Your task to perform on an android device: Go to settings Image 0: 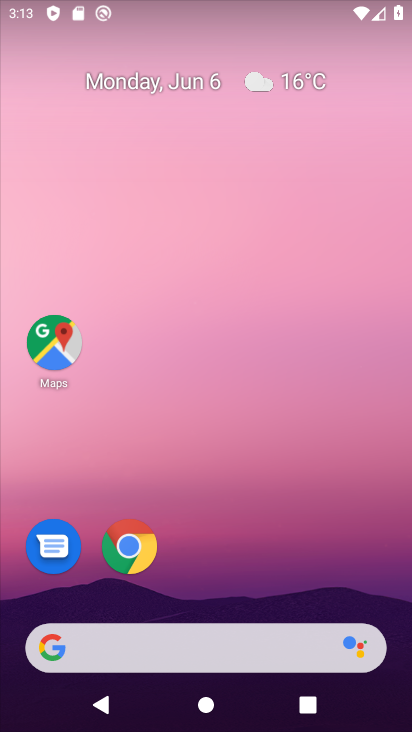
Step 0: drag from (295, 511) to (283, 0)
Your task to perform on an android device: Go to settings Image 1: 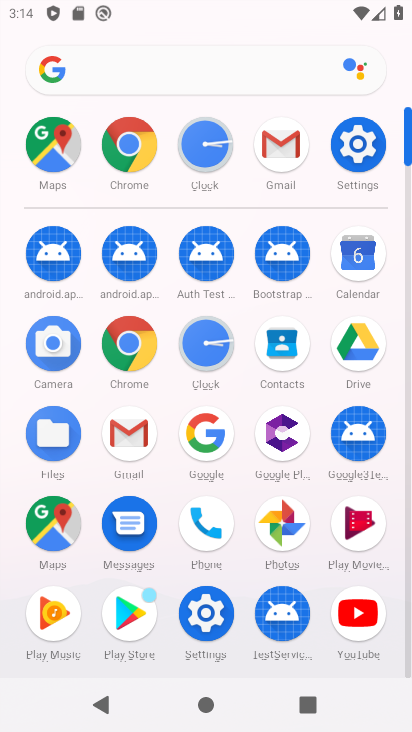
Step 1: click (363, 157)
Your task to perform on an android device: Go to settings Image 2: 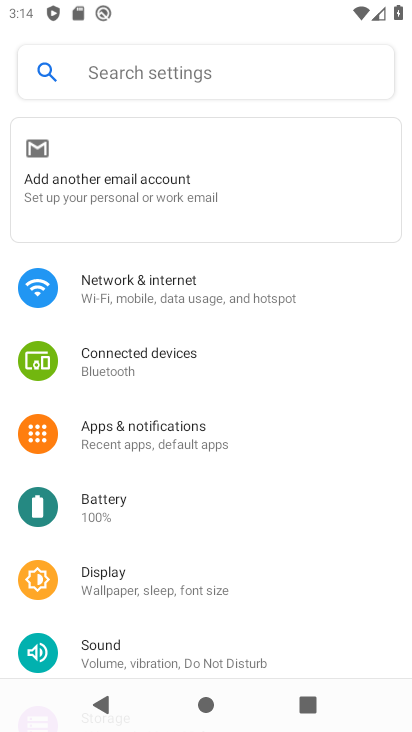
Step 2: task complete